Your task to perform on an android device: empty trash in the gmail app Image 0: 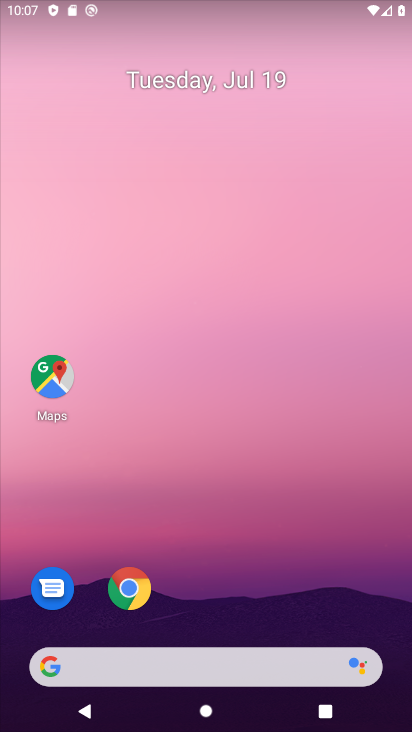
Step 0: drag from (200, 546) to (182, 126)
Your task to perform on an android device: empty trash in the gmail app Image 1: 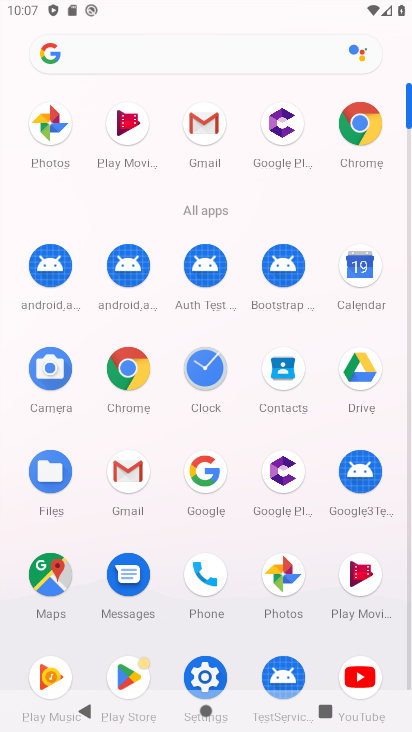
Step 1: click (124, 478)
Your task to perform on an android device: empty trash in the gmail app Image 2: 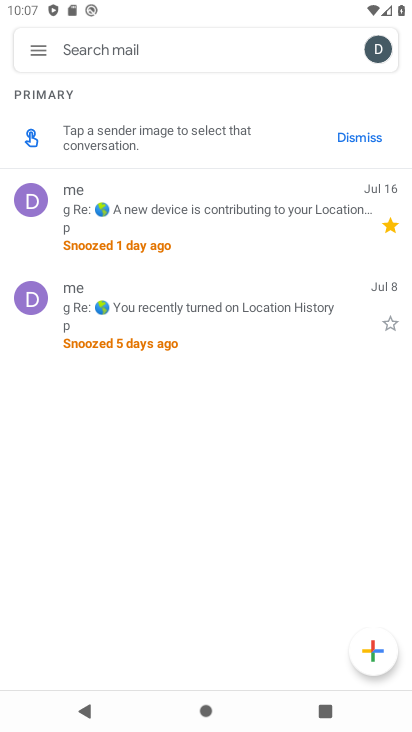
Step 2: click (46, 55)
Your task to perform on an android device: empty trash in the gmail app Image 3: 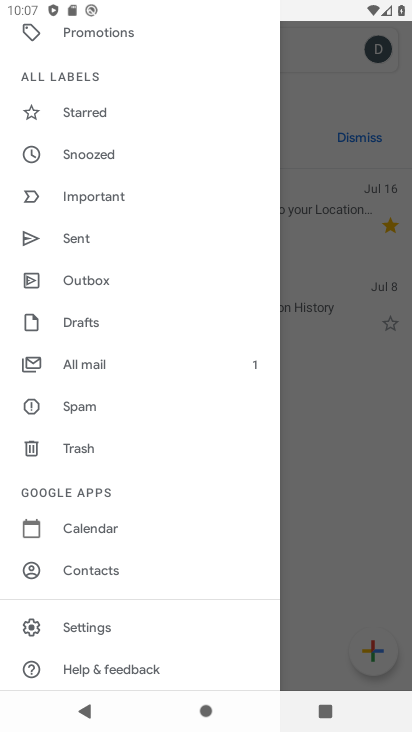
Step 3: click (115, 447)
Your task to perform on an android device: empty trash in the gmail app Image 4: 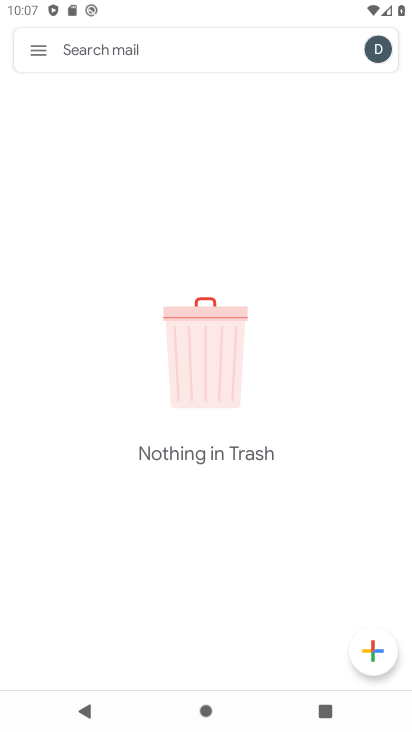
Step 4: task complete